Your task to perform on an android device: Open Amazon Image 0: 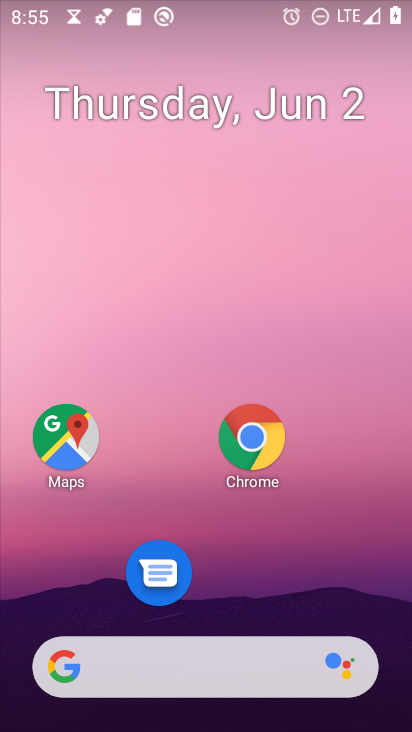
Step 0: click (256, 443)
Your task to perform on an android device: Open Amazon Image 1: 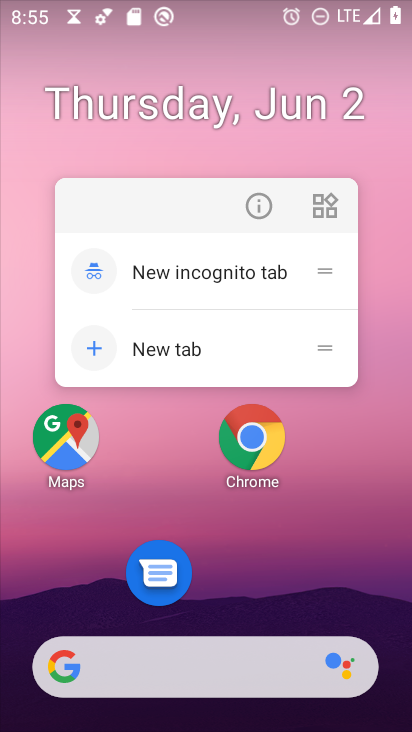
Step 1: click (256, 444)
Your task to perform on an android device: Open Amazon Image 2: 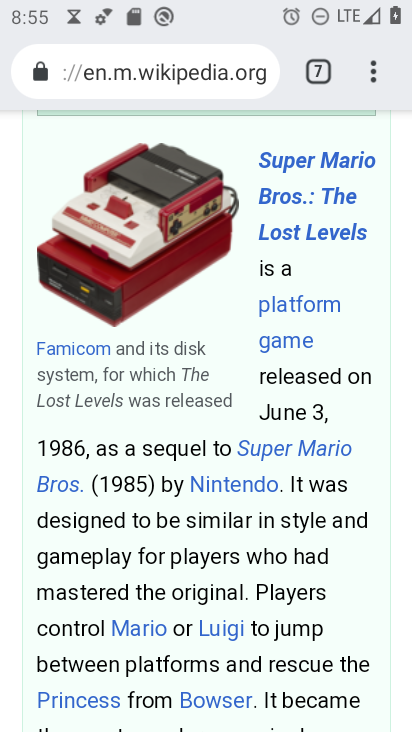
Step 2: drag from (375, 75) to (230, 144)
Your task to perform on an android device: Open Amazon Image 3: 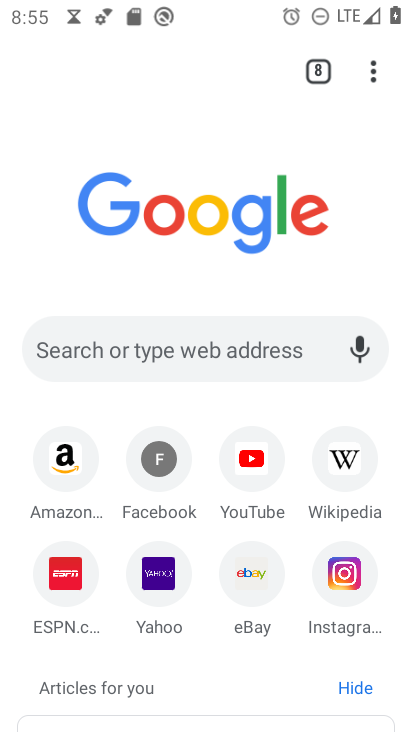
Step 3: click (69, 467)
Your task to perform on an android device: Open Amazon Image 4: 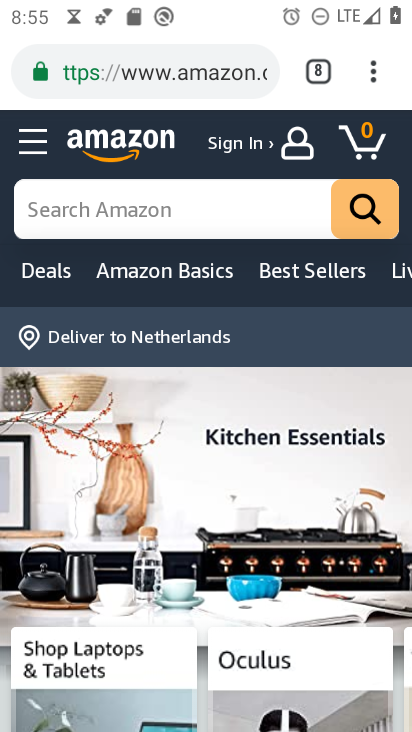
Step 4: task complete